Your task to perform on an android device: Open display settings Image 0: 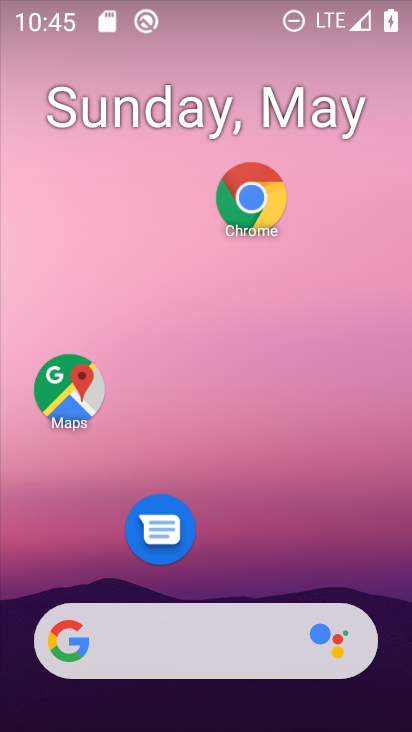
Step 0: drag from (256, 513) to (338, 106)
Your task to perform on an android device: Open display settings Image 1: 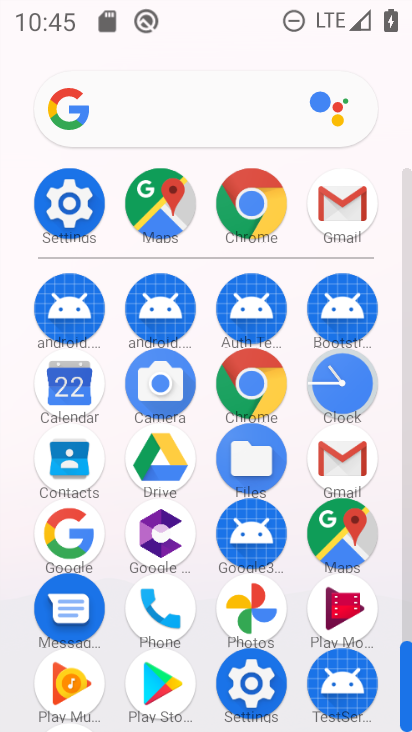
Step 1: click (69, 204)
Your task to perform on an android device: Open display settings Image 2: 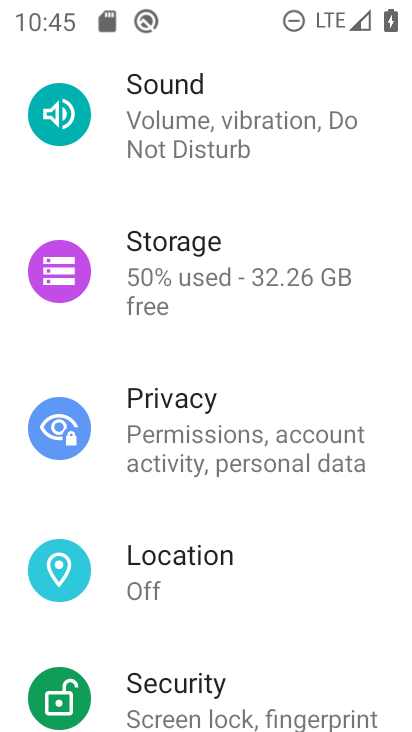
Step 2: drag from (190, 219) to (247, 447)
Your task to perform on an android device: Open display settings Image 3: 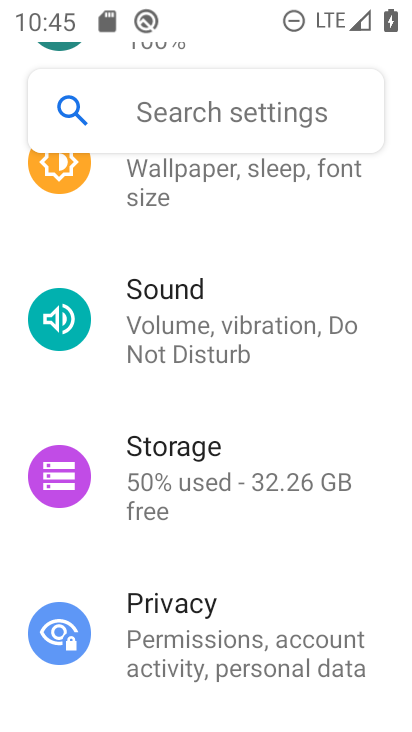
Step 3: drag from (216, 266) to (224, 486)
Your task to perform on an android device: Open display settings Image 4: 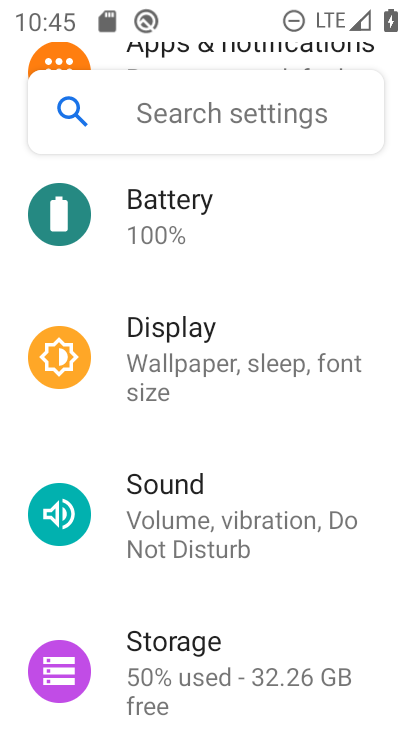
Step 4: click (221, 330)
Your task to perform on an android device: Open display settings Image 5: 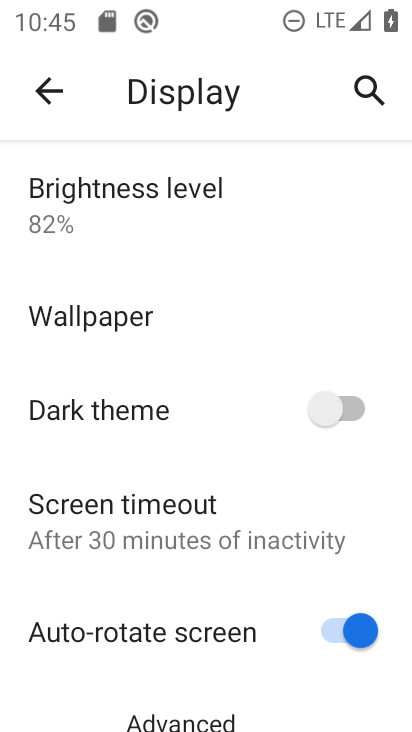
Step 5: task complete